Your task to perform on an android device: turn off notifications in google photos Image 0: 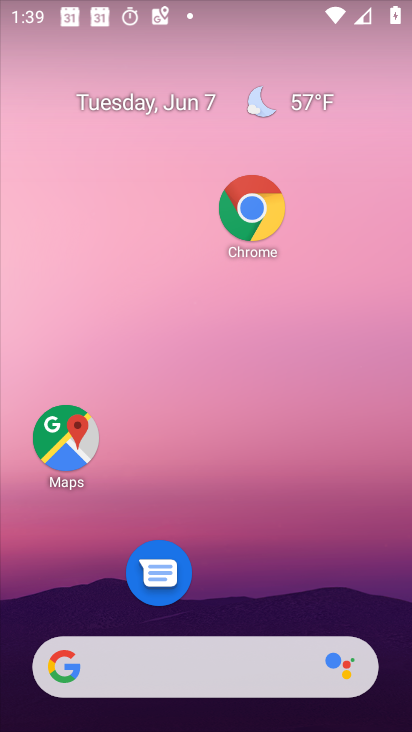
Step 0: drag from (210, 590) to (210, 164)
Your task to perform on an android device: turn off notifications in google photos Image 1: 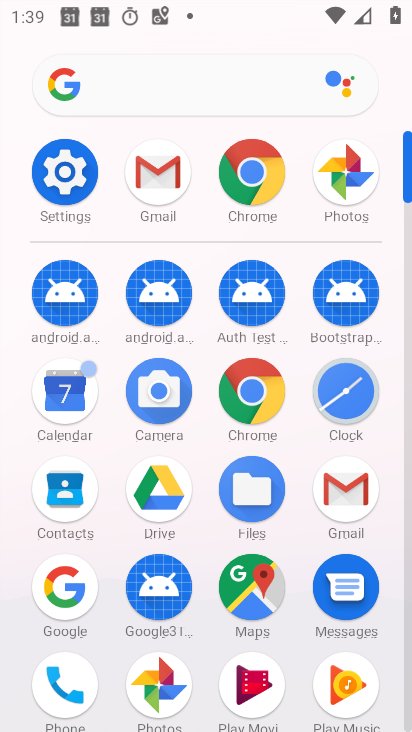
Step 1: click (339, 181)
Your task to perform on an android device: turn off notifications in google photos Image 2: 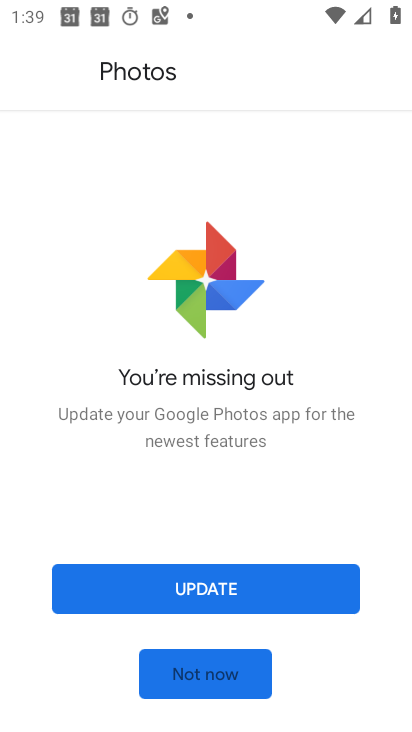
Step 2: click (199, 676)
Your task to perform on an android device: turn off notifications in google photos Image 3: 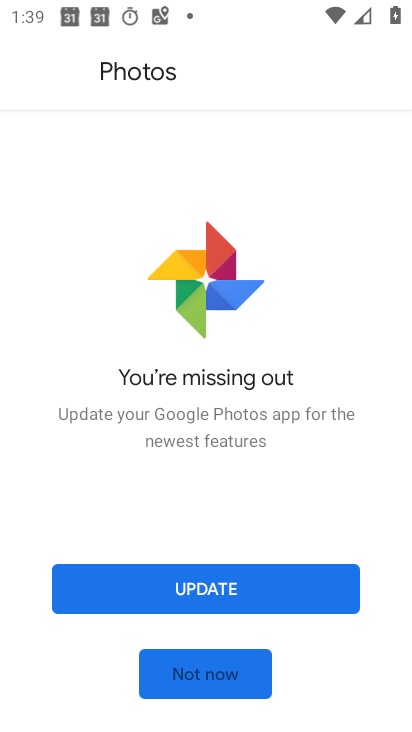
Step 3: click (237, 669)
Your task to perform on an android device: turn off notifications in google photos Image 4: 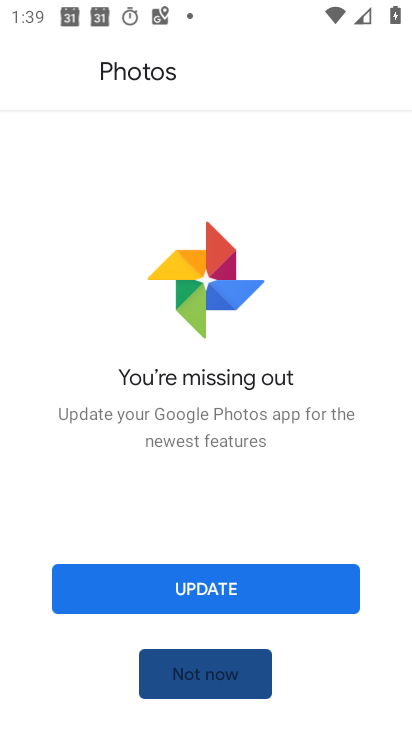
Step 4: click (215, 671)
Your task to perform on an android device: turn off notifications in google photos Image 5: 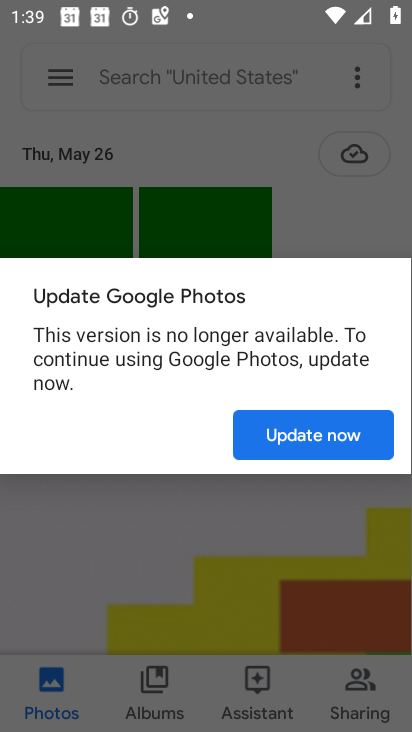
Step 5: click (286, 419)
Your task to perform on an android device: turn off notifications in google photos Image 6: 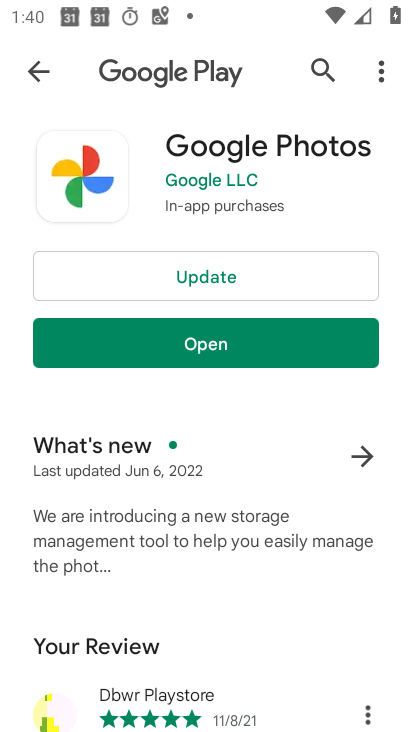
Step 6: click (199, 345)
Your task to perform on an android device: turn off notifications in google photos Image 7: 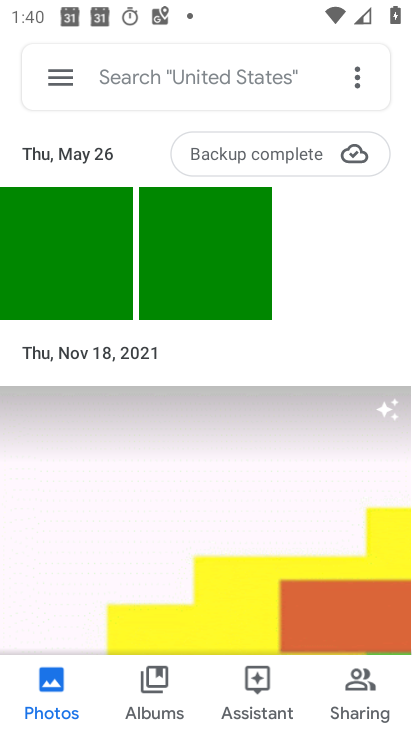
Step 7: click (42, 71)
Your task to perform on an android device: turn off notifications in google photos Image 8: 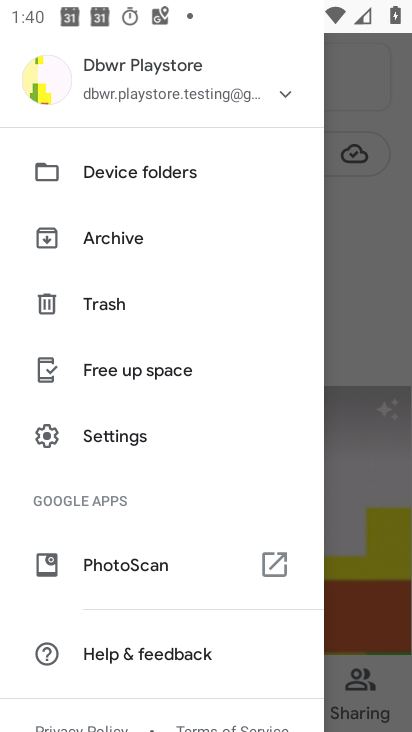
Step 8: click (105, 434)
Your task to perform on an android device: turn off notifications in google photos Image 9: 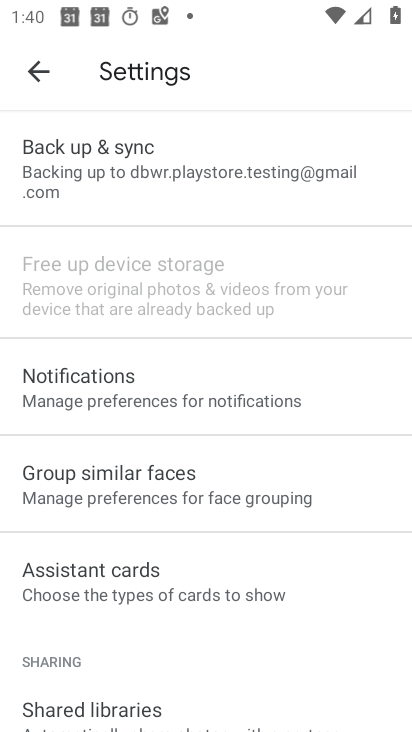
Step 9: drag from (184, 572) to (199, 279)
Your task to perform on an android device: turn off notifications in google photos Image 10: 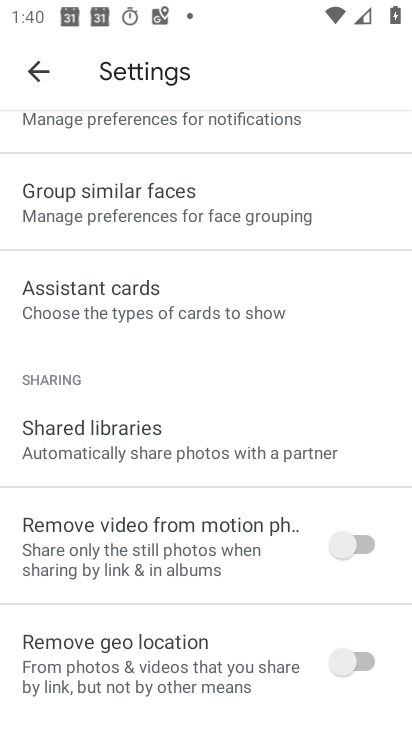
Step 10: drag from (197, 550) to (215, 277)
Your task to perform on an android device: turn off notifications in google photos Image 11: 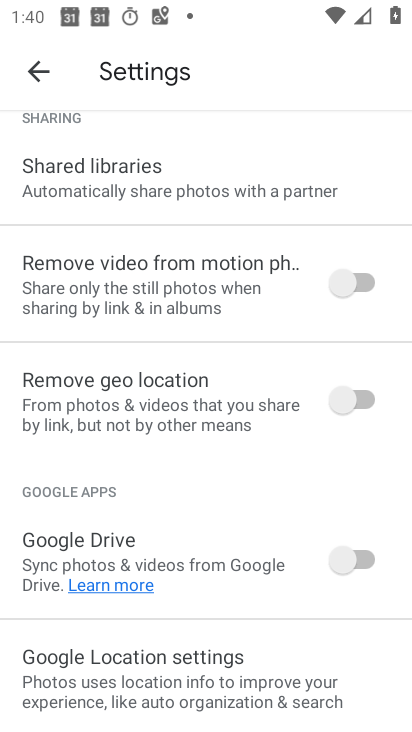
Step 11: drag from (220, 584) to (228, 341)
Your task to perform on an android device: turn off notifications in google photos Image 12: 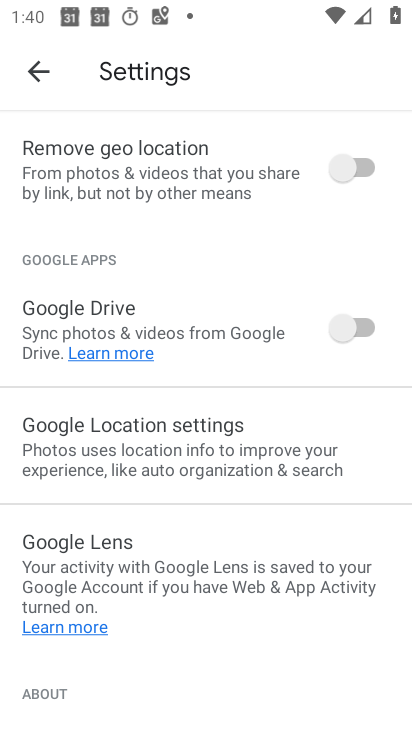
Step 12: drag from (191, 620) to (175, 379)
Your task to perform on an android device: turn off notifications in google photos Image 13: 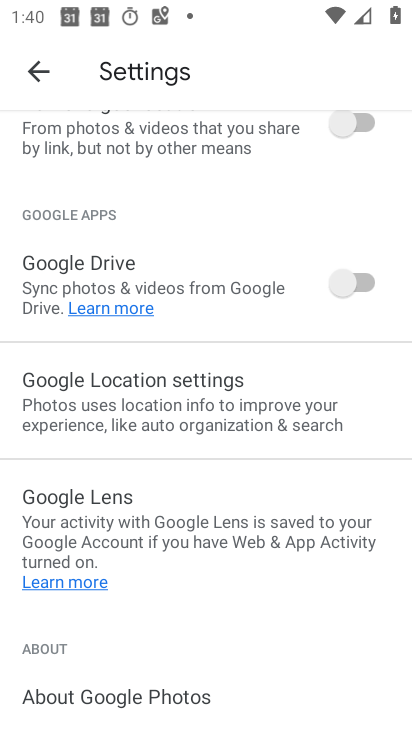
Step 13: drag from (190, 340) to (191, 565)
Your task to perform on an android device: turn off notifications in google photos Image 14: 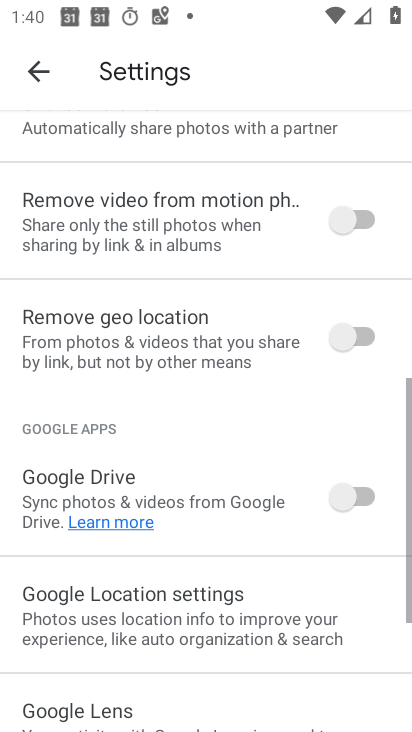
Step 14: drag from (189, 281) to (189, 565)
Your task to perform on an android device: turn off notifications in google photos Image 15: 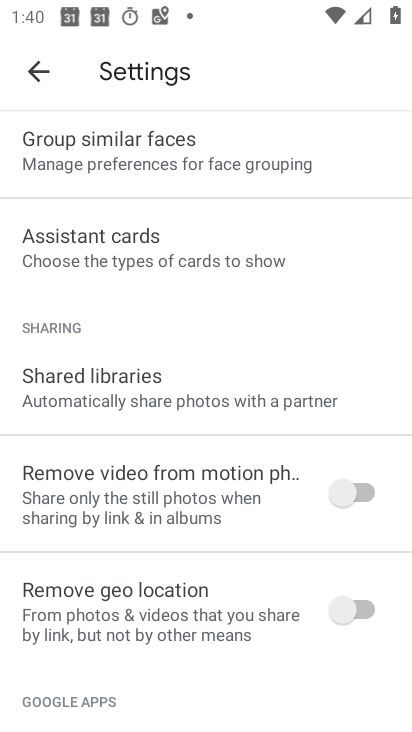
Step 15: drag from (197, 304) to (201, 557)
Your task to perform on an android device: turn off notifications in google photos Image 16: 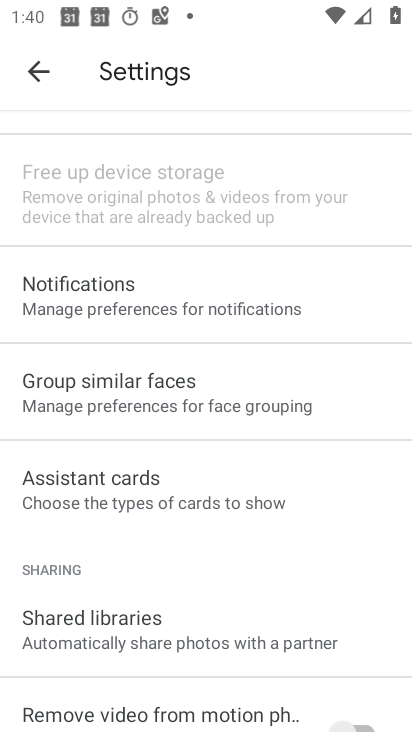
Step 16: drag from (228, 316) to (228, 574)
Your task to perform on an android device: turn off notifications in google photos Image 17: 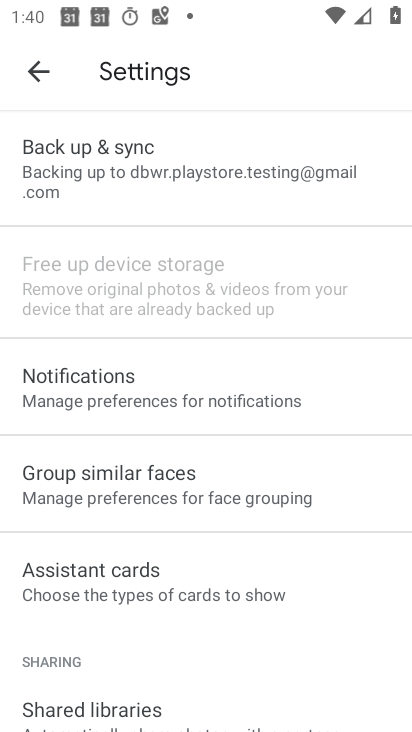
Step 17: click (197, 409)
Your task to perform on an android device: turn off notifications in google photos Image 18: 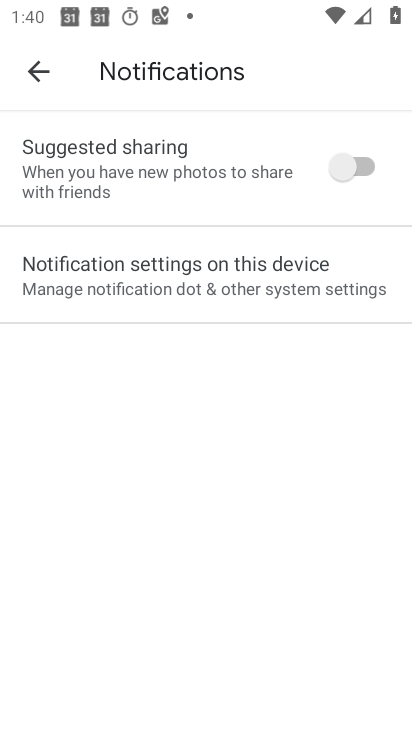
Step 18: click (248, 302)
Your task to perform on an android device: turn off notifications in google photos Image 19: 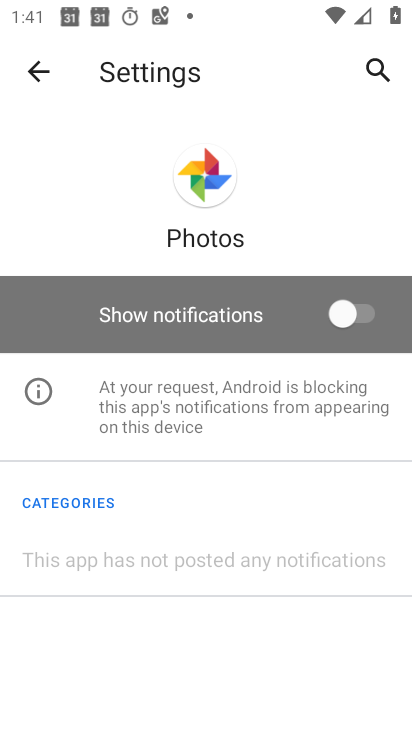
Step 19: task complete